Your task to perform on an android device: change the clock display to analog Image 0: 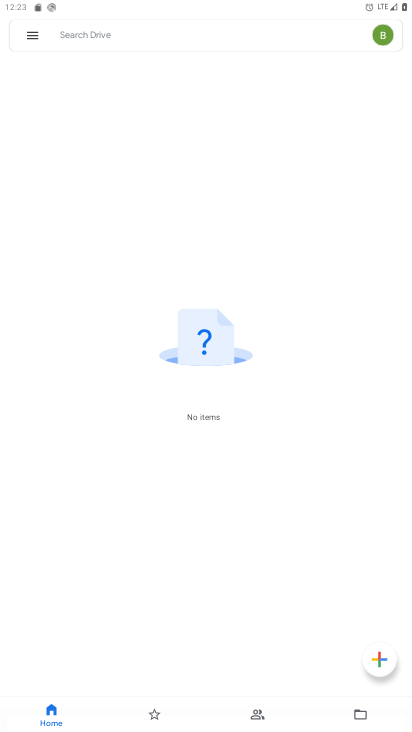
Step 0: press home button
Your task to perform on an android device: change the clock display to analog Image 1: 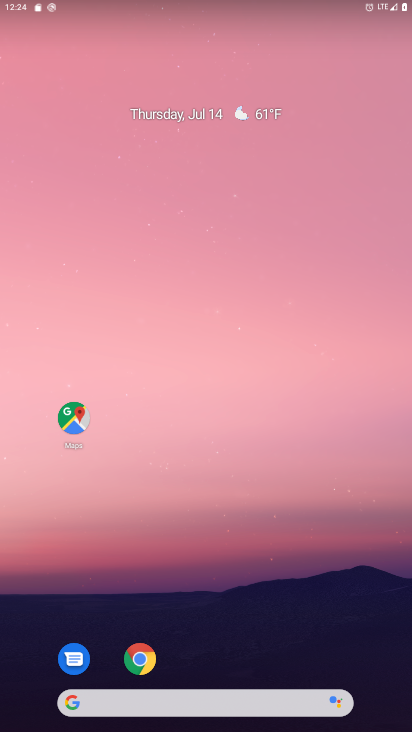
Step 1: drag from (221, 664) to (215, 218)
Your task to perform on an android device: change the clock display to analog Image 2: 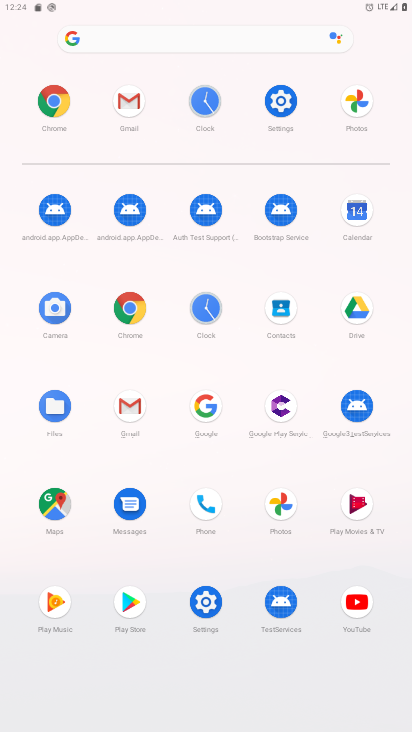
Step 2: click (204, 300)
Your task to perform on an android device: change the clock display to analog Image 3: 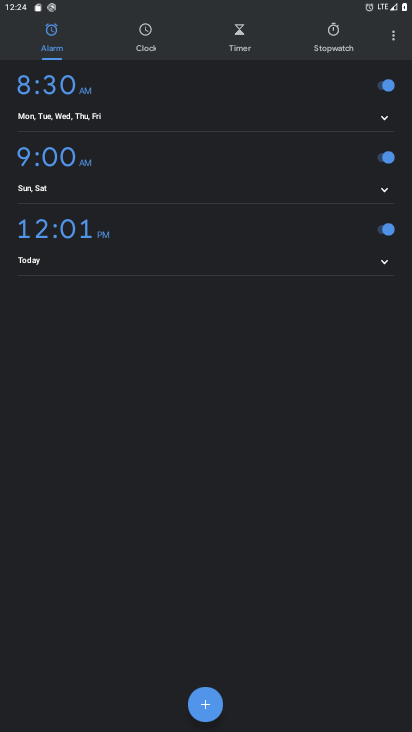
Step 3: click (392, 40)
Your task to perform on an android device: change the clock display to analog Image 4: 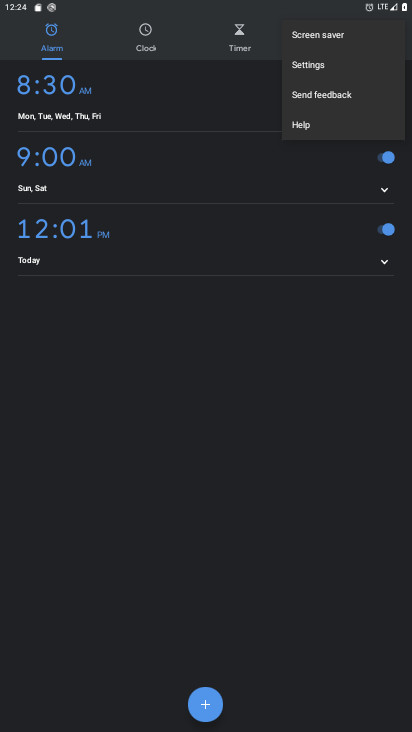
Step 4: click (331, 66)
Your task to perform on an android device: change the clock display to analog Image 5: 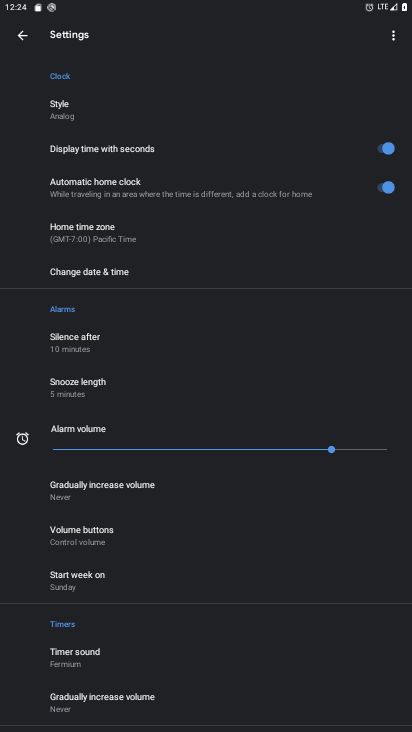
Step 5: click (78, 105)
Your task to perform on an android device: change the clock display to analog Image 6: 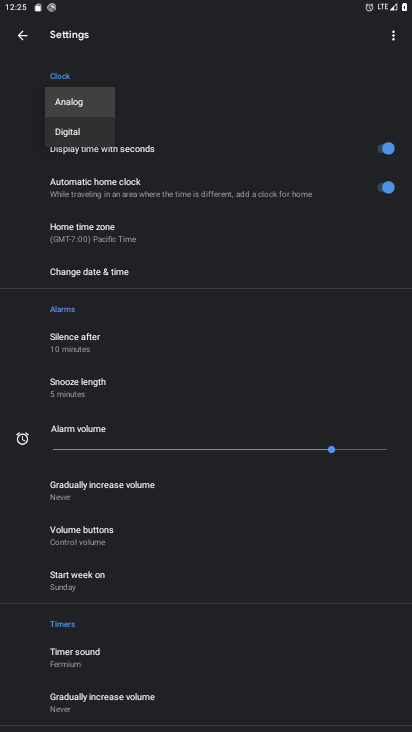
Step 6: click (85, 105)
Your task to perform on an android device: change the clock display to analog Image 7: 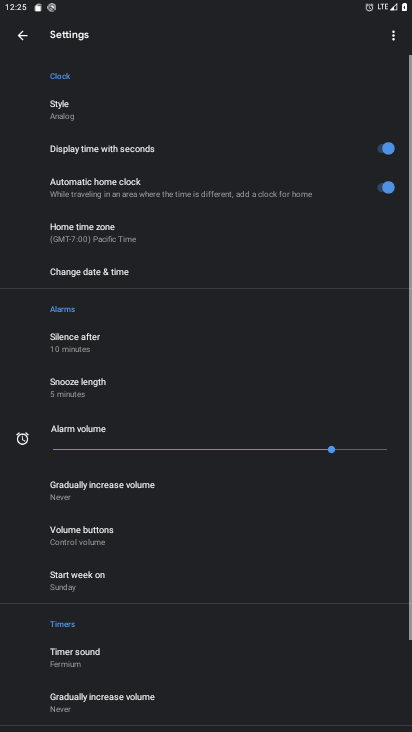
Step 7: task complete